Your task to perform on an android device: Open calendar and show me the third week of next month Image 0: 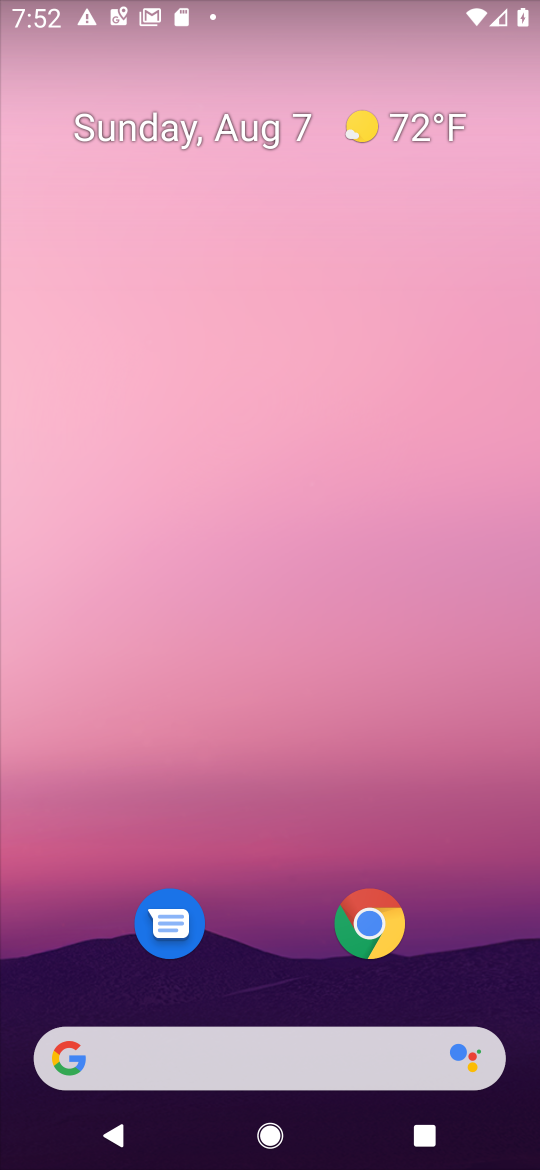
Step 0: drag from (496, 959) to (269, 47)
Your task to perform on an android device: Open calendar and show me the third week of next month Image 1: 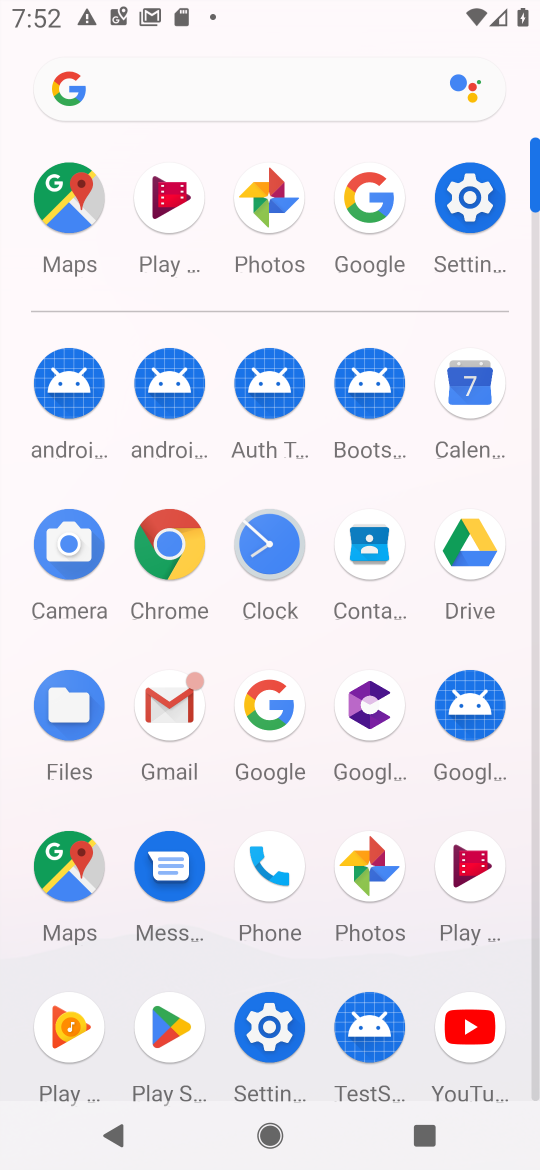
Step 1: click (464, 371)
Your task to perform on an android device: Open calendar and show me the third week of next month Image 2: 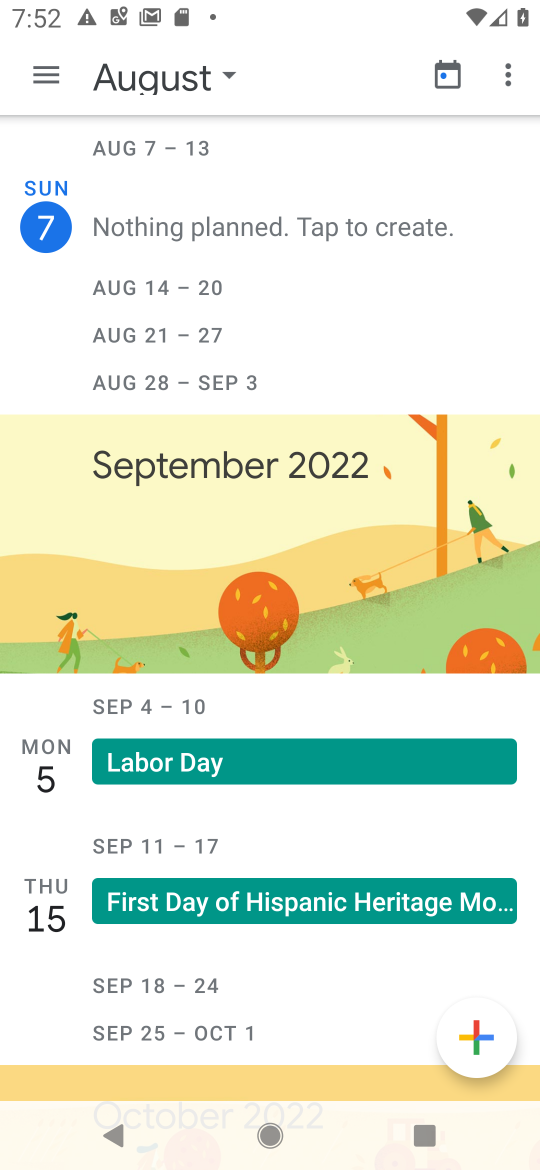
Step 2: click (130, 83)
Your task to perform on an android device: Open calendar and show me the third week of next month Image 3: 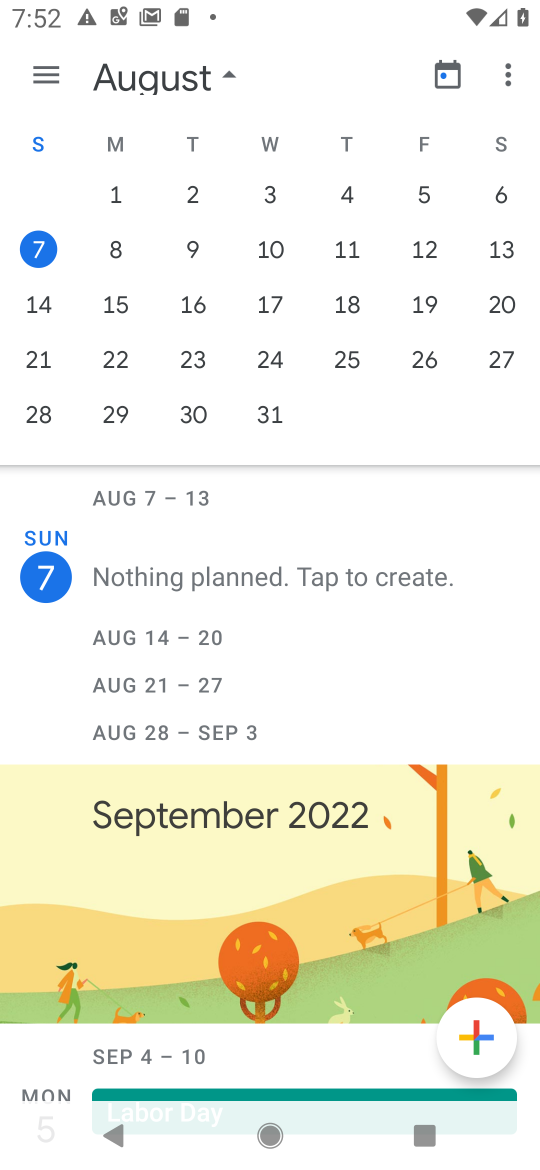
Step 3: drag from (469, 271) to (20, 335)
Your task to perform on an android device: Open calendar and show me the third week of next month Image 4: 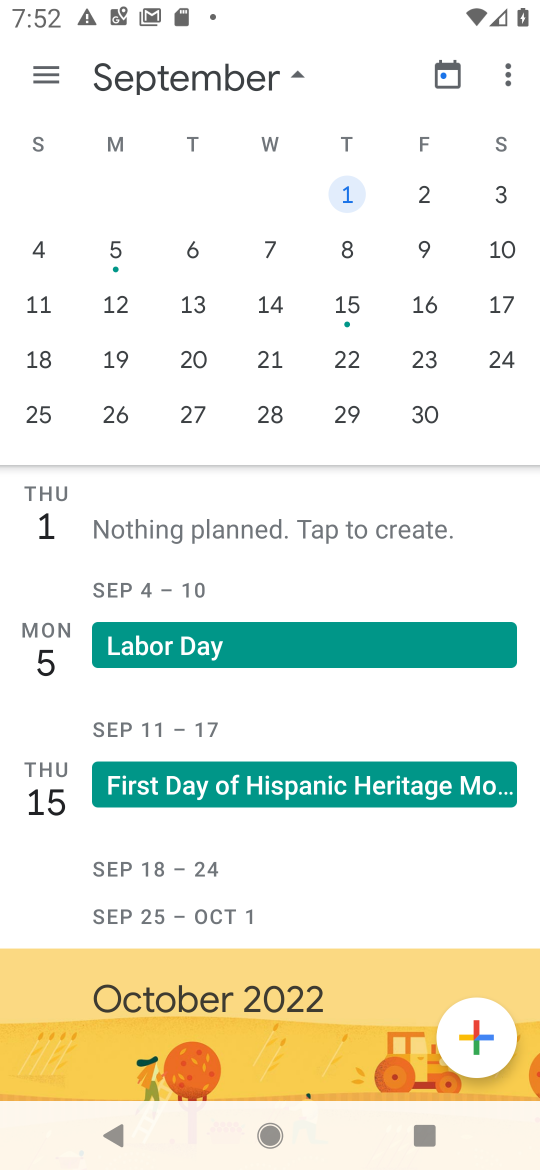
Step 4: click (53, 367)
Your task to perform on an android device: Open calendar and show me the third week of next month Image 5: 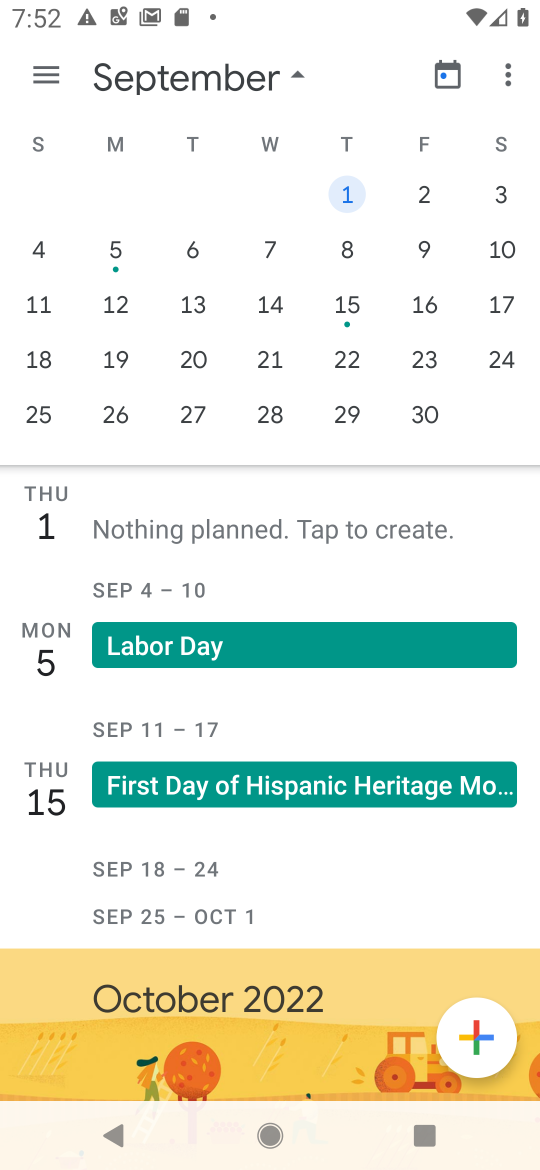
Step 5: click (34, 363)
Your task to perform on an android device: Open calendar and show me the third week of next month Image 6: 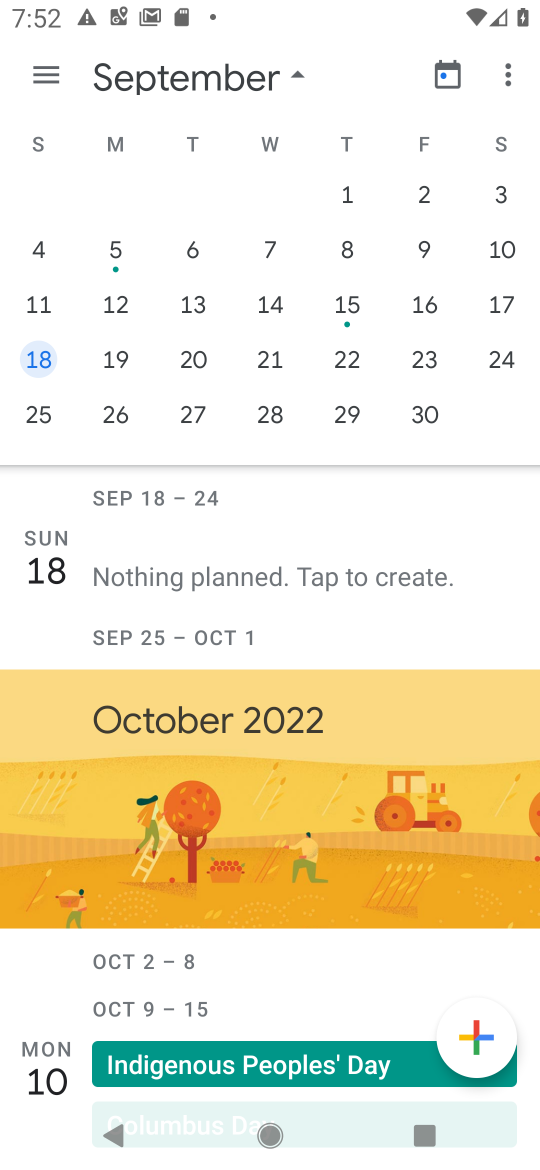
Step 6: task complete